Your task to perform on an android device: Go to Android settings Image 0: 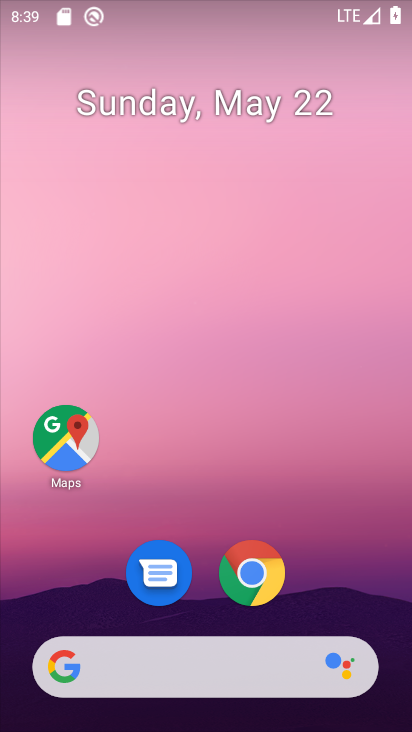
Step 0: drag from (190, 631) to (214, 160)
Your task to perform on an android device: Go to Android settings Image 1: 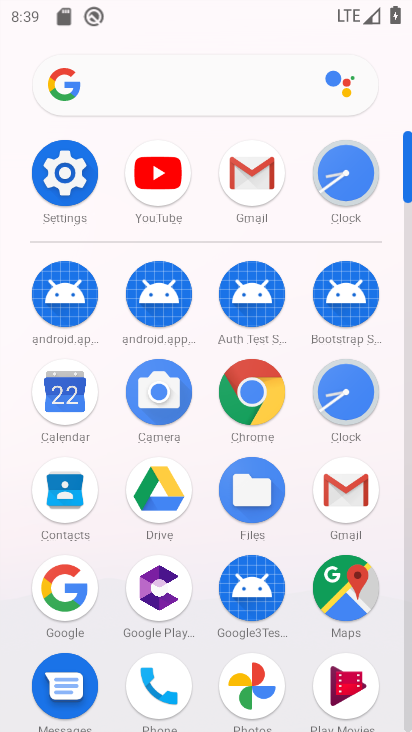
Step 1: click (75, 192)
Your task to perform on an android device: Go to Android settings Image 2: 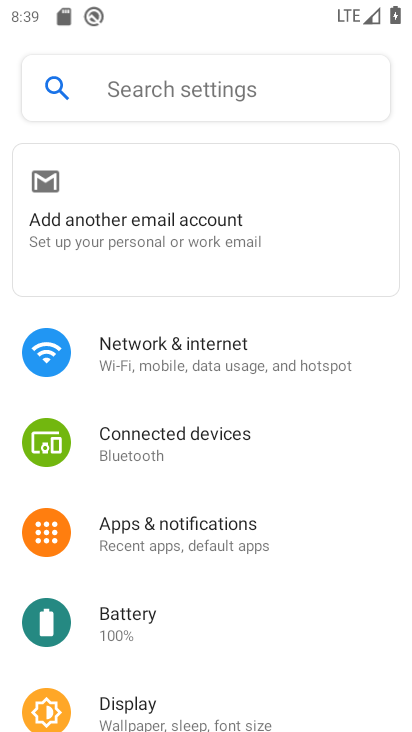
Step 2: drag from (220, 570) to (356, 15)
Your task to perform on an android device: Go to Android settings Image 3: 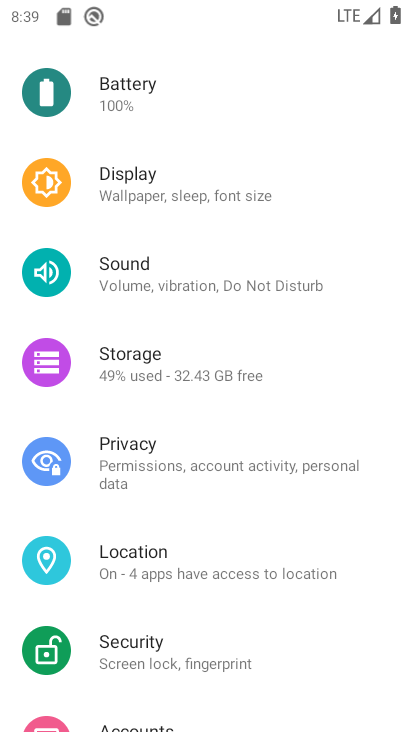
Step 3: drag from (281, 588) to (401, 6)
Your task to perform on an android device: Go to Android settings Image 4: 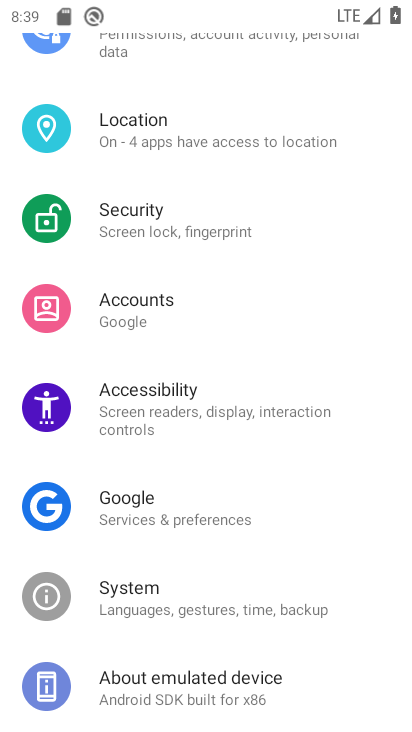
Step 4: click (163, 683)
Your task to perform on an android device: Go to Android settings Image 5: 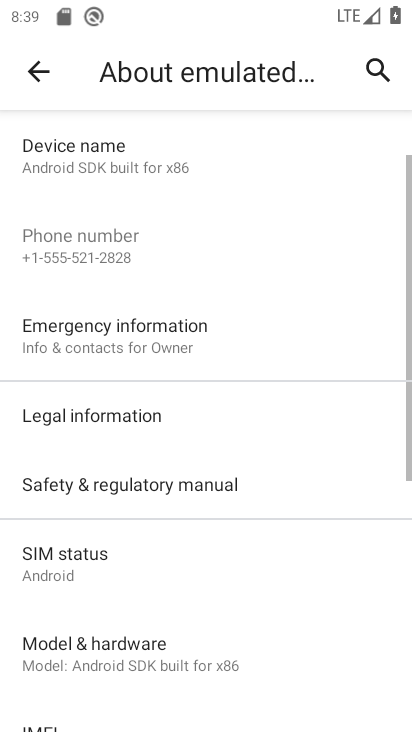
Step 5: drag from (238, 608) to (304, 64)
Your task to perform on an android device: Go to Android settings Image 6: 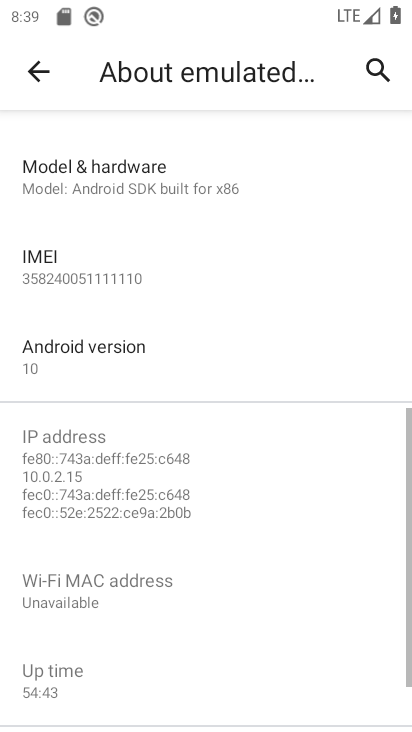
Step 6: click (74, 331)
Your task to perform on an android device: Go to Android settings Image 7: 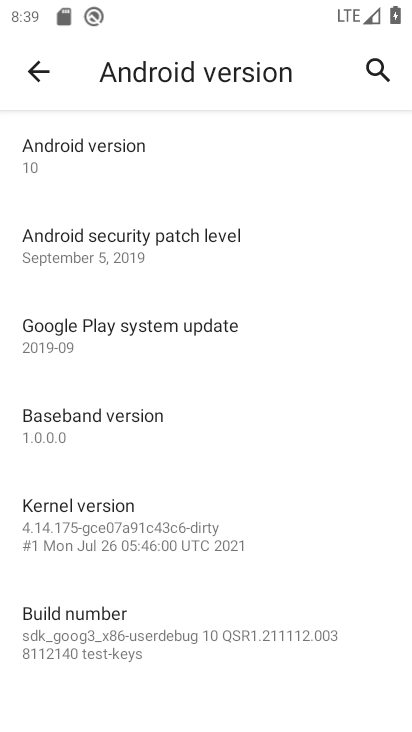
Step 7: drag from (186, 653) to (249, 188)
Your task to perform on an android device: Go to Android settings Image 8: 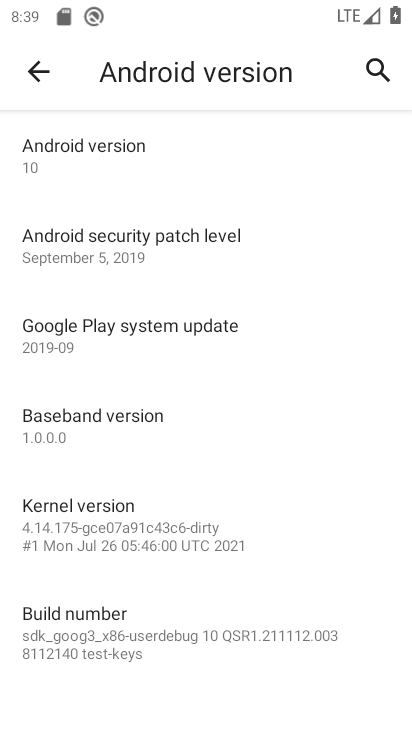
Step 8: drag from (223, 576) to (300, 196)
Your task to perform on an android device: Go to Android settings Image 9: 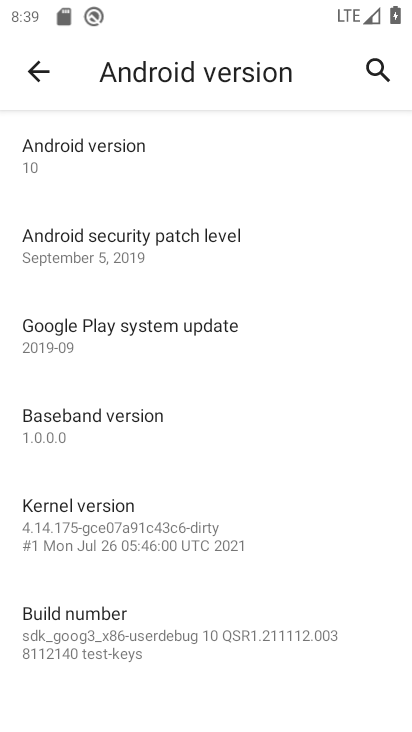
Step 9: drag from (200, 192) to (224, 715)
Your task to perform on an android device: Go to Android settings Image 10: 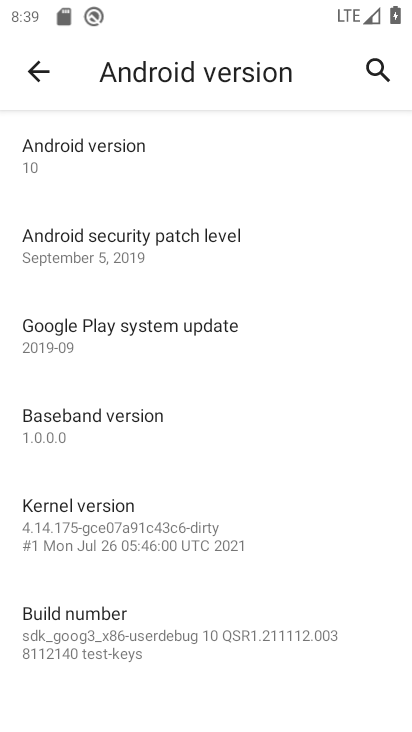
Step 10: drag from (205, 595) to (277, 163)
Your task to perform on an android device: Go to Android settings Image 11: 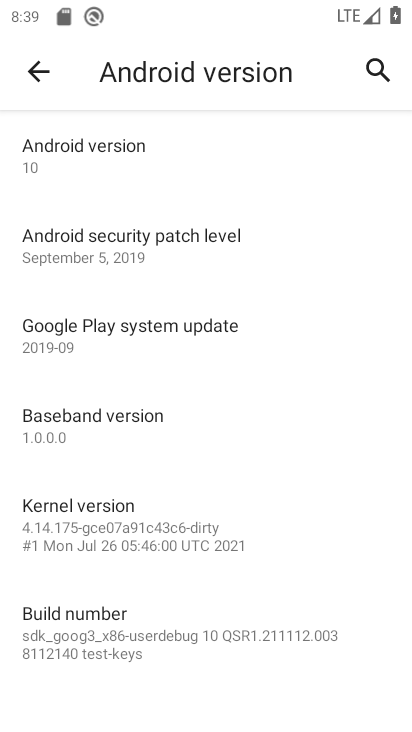
Step 11: click (153, 156)
Your task to perform on an android device: Go to Android settings Image 12: 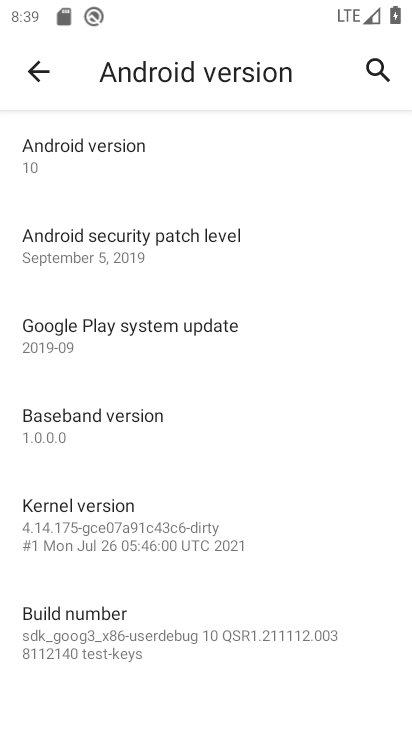
Step 12: task complete